Your task to perform on an android device: Go to Wikipedia Image 0: 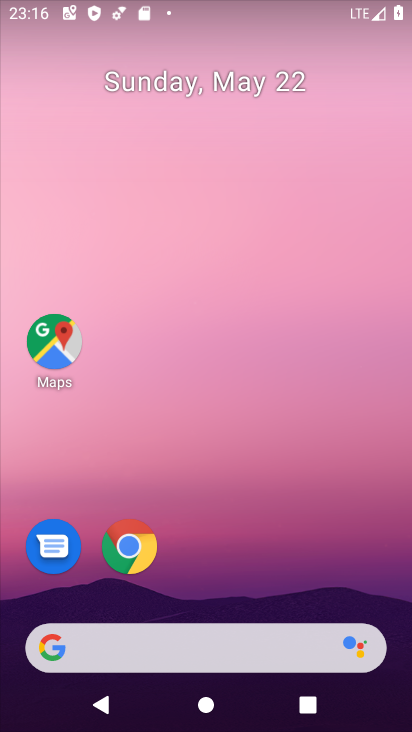
Step 0: drag from (200, 600) to (278, 136)
Your task to perform on an android device: Go to Wikipedia Image 1: 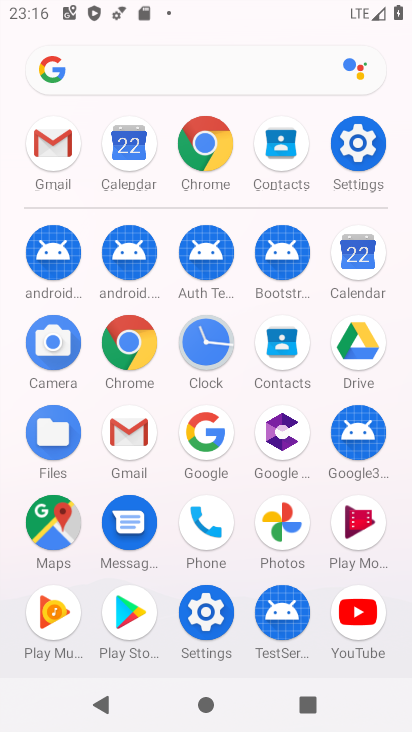
Step 1: click (210, 65)
Your task to perform on an android device: Go to Wikipedia Image 2: 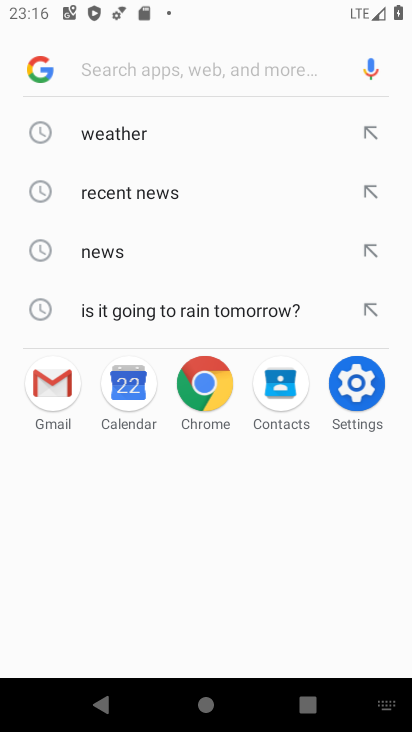
Step 2: type "wikipedia"
Your task to perform on an android device: Go to Wikipedia Image 3: 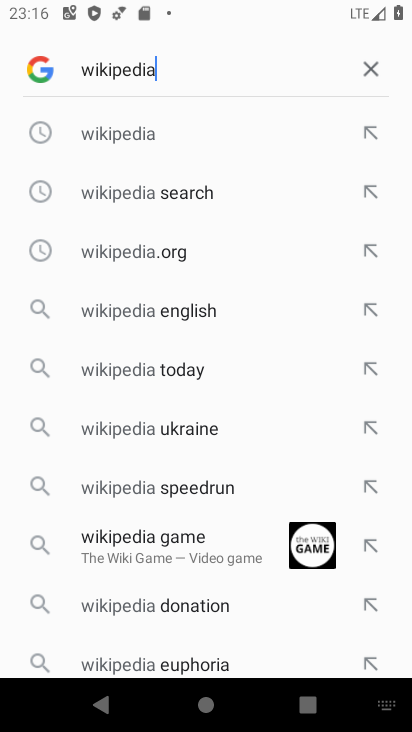
Step 3: click (147, 126)
Your task to perform on an android device: Go to Wikipedia Image 4: 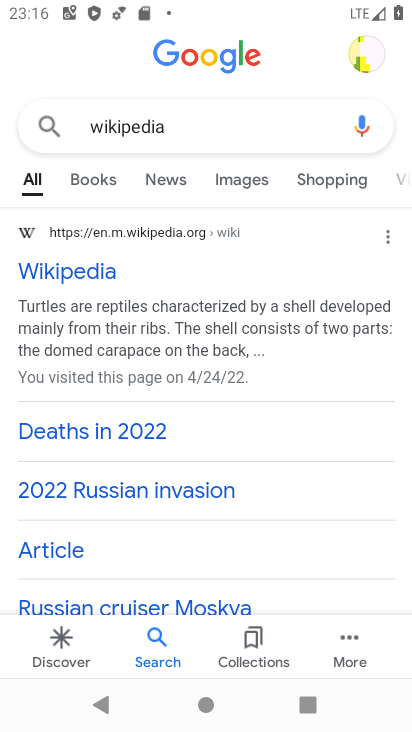
Step 4: click (57, 269)
Your task to perform on an android device: Go to Wikipedia Image 5: 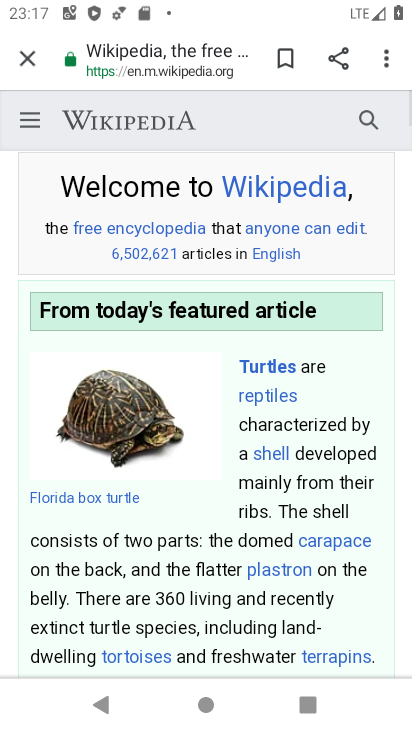
Step 5: task complete